Your task to perform on an android device: toggle improve location accuracy Image 0: 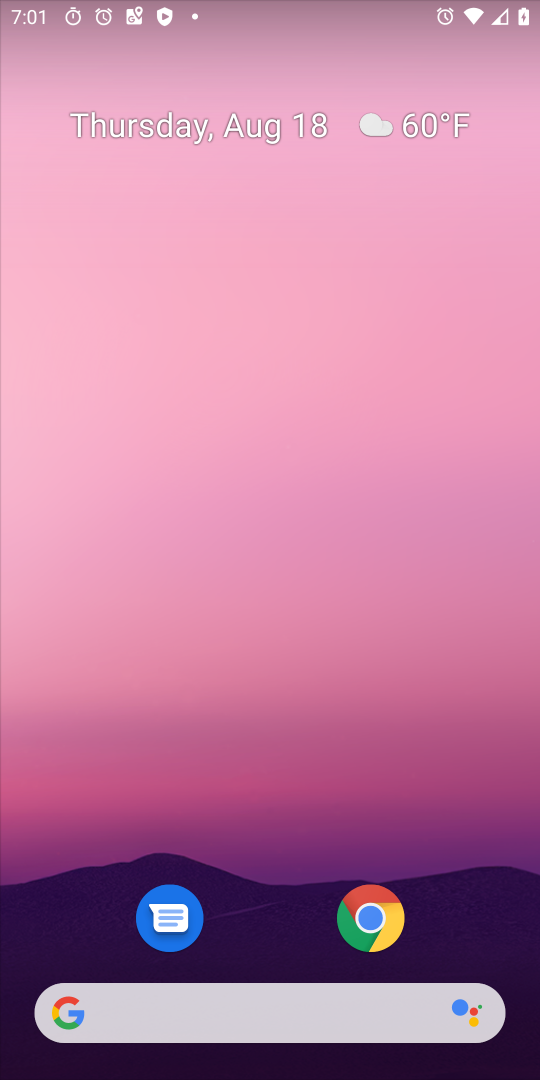
Step 0: press home button
Your task to perform on an android device: toggle improve location accuracy Image 1: 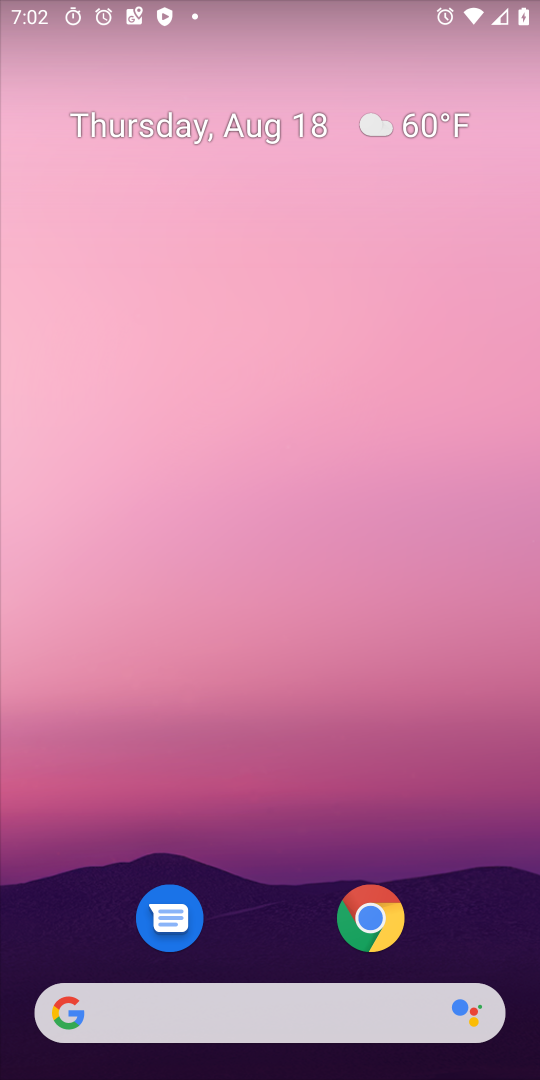
Step 1: drag from (292, 895) to (464, 38)
Your task to perform on an android device: toggle improve location accuracy Image 2: 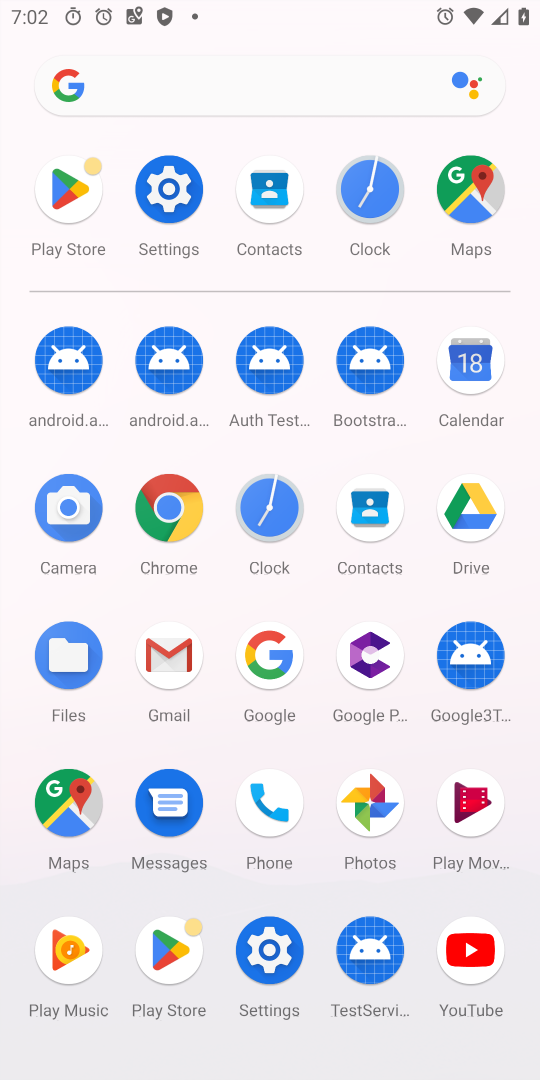
Step 2: click (172, 196)
Your task to perform on an android device: toggle improve location accuracy Image 3: 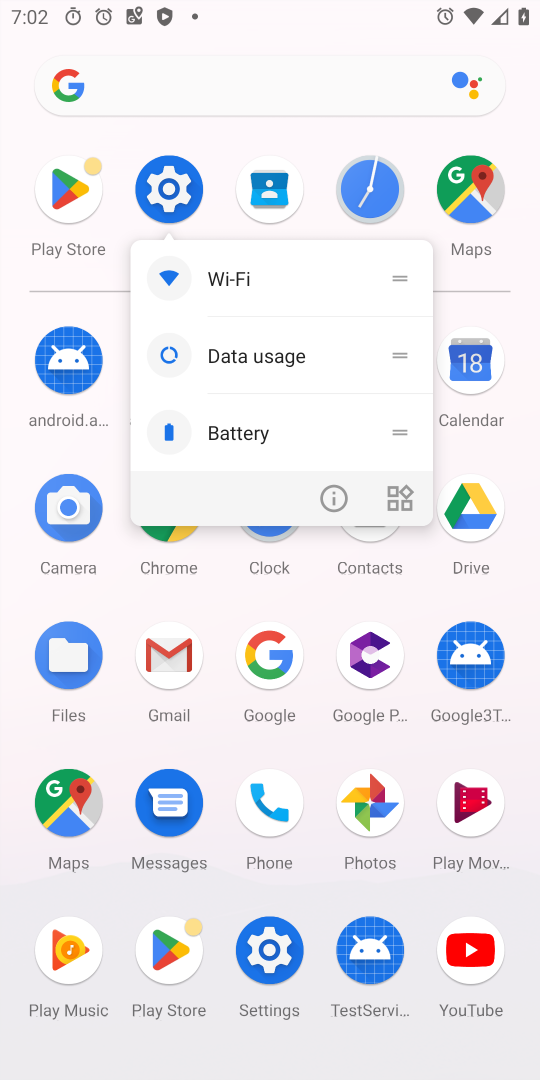
Step 3: click (172, 196)
Your task to perform on an android device: toggle improve location accuracy Image 4: 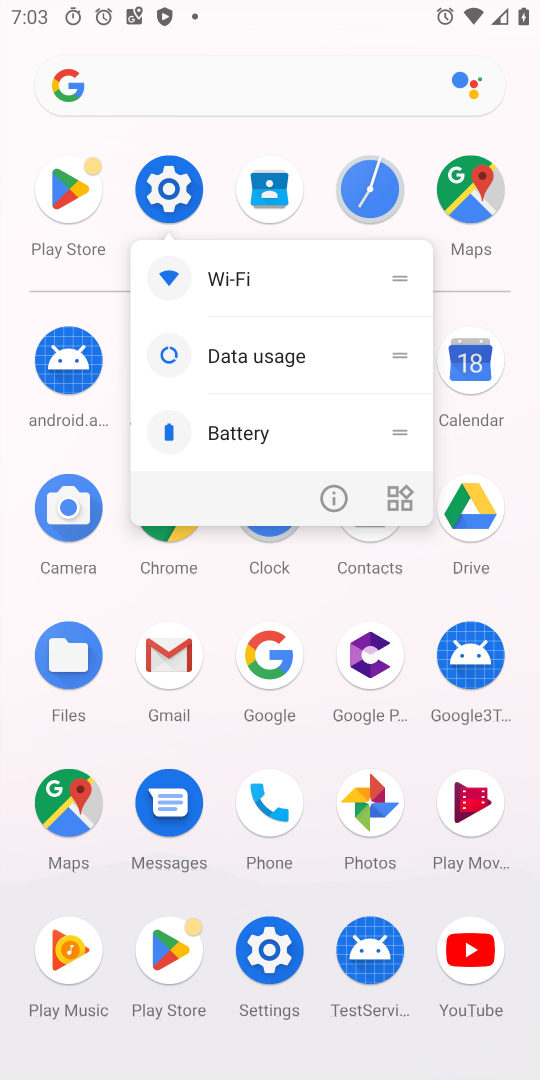
Step 4: click (151, 206)
Your task to perform on an android device: toggle improve location accuracy Image 5: 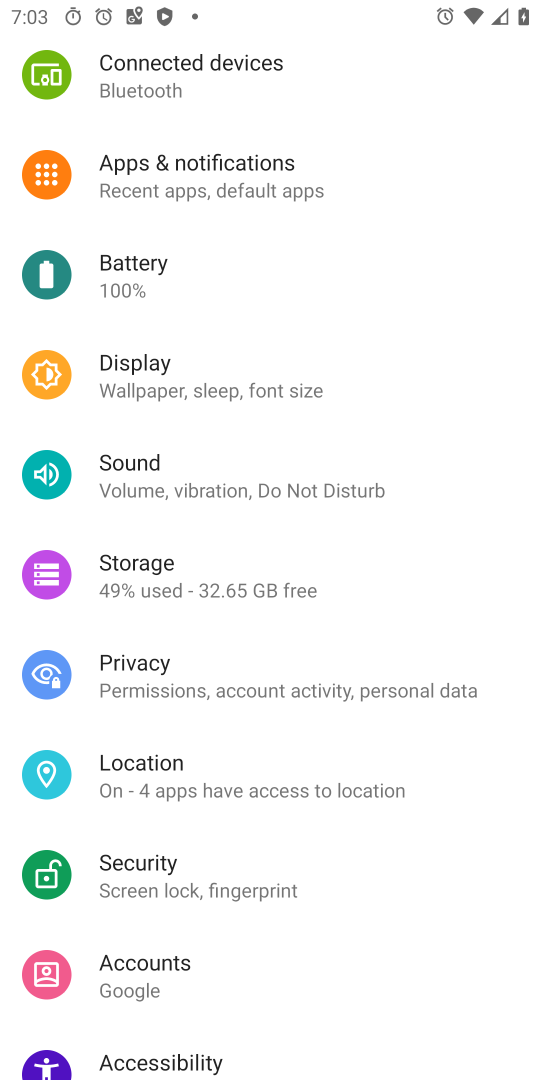
Step 5: click (163, 764)
Your task to perform on an android device: toggle improve location accuracy Image 6: 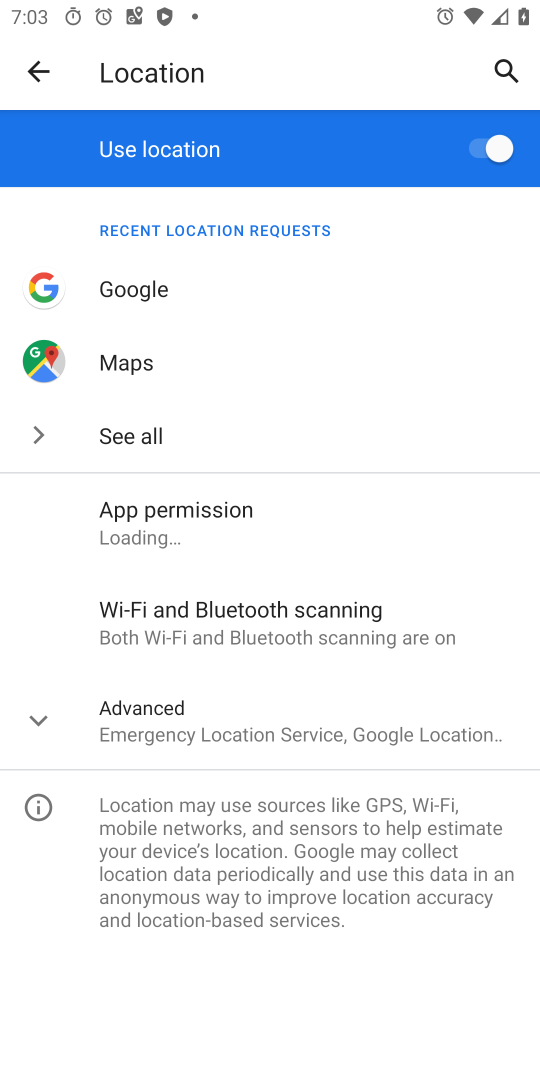
Step 6: click (144, 719)
Your task to perform on an android device: toggle improve location accuracy Image 7: 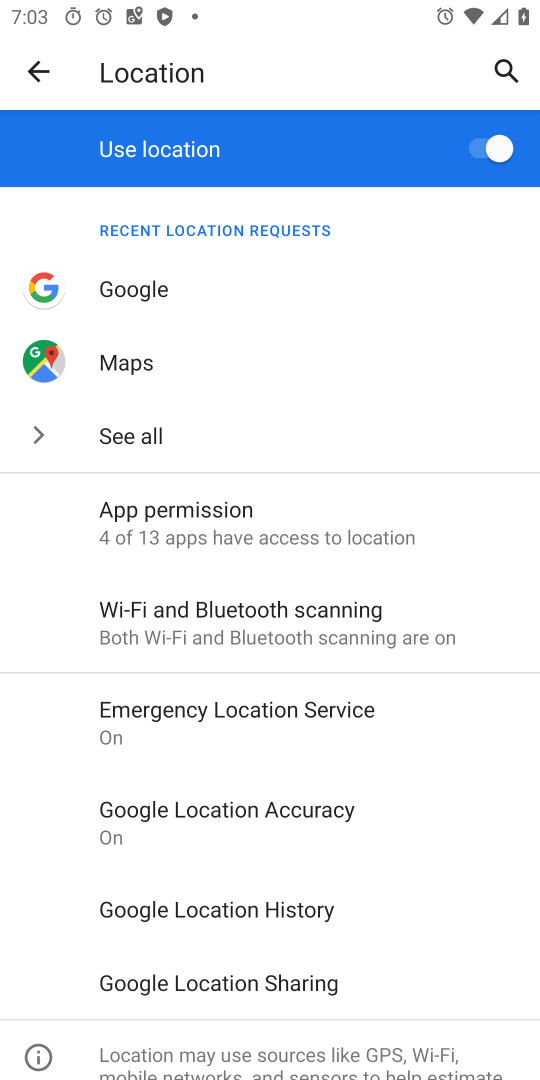
Step 7: click (260, 811)
Your task to perform on an android device: toggle improve location accuracy Image 8: 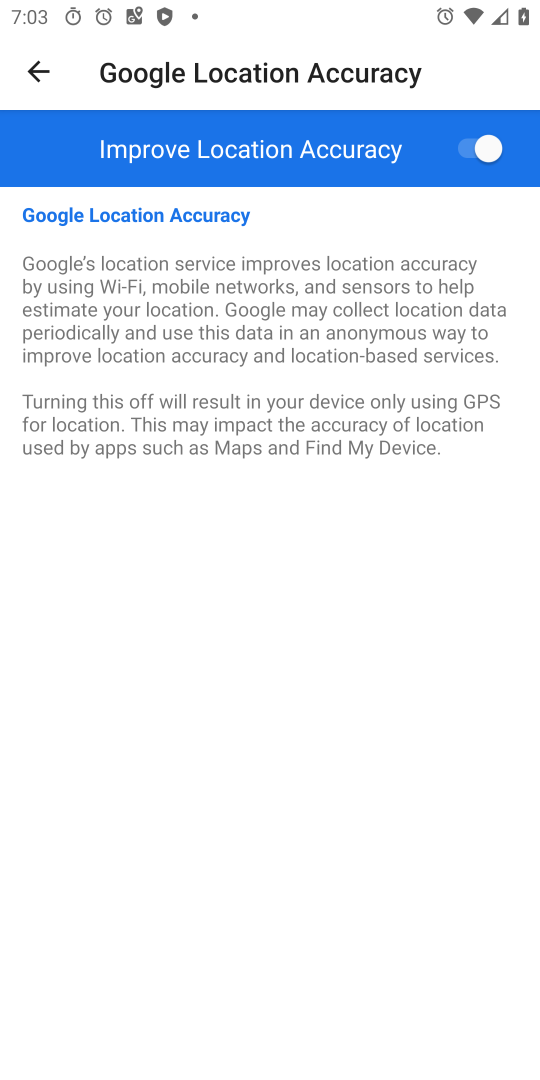
Step 8: click (472, 149)
Your task to perform on an android device: toggle improve location accuracy Image 9: 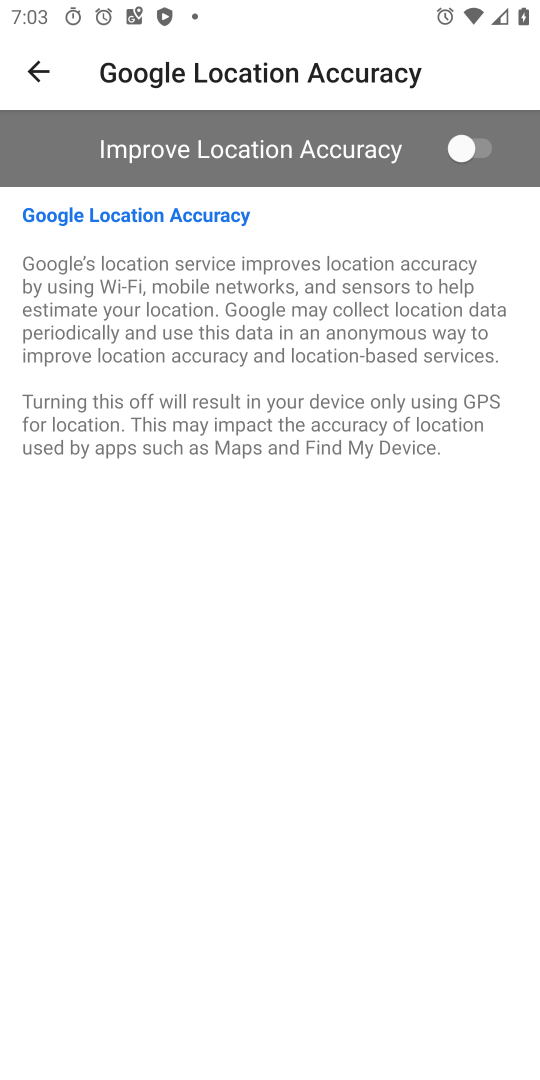
Step 9: task complete